Your task to perform on an android device: turn pop-ups off in chrome Image 0: 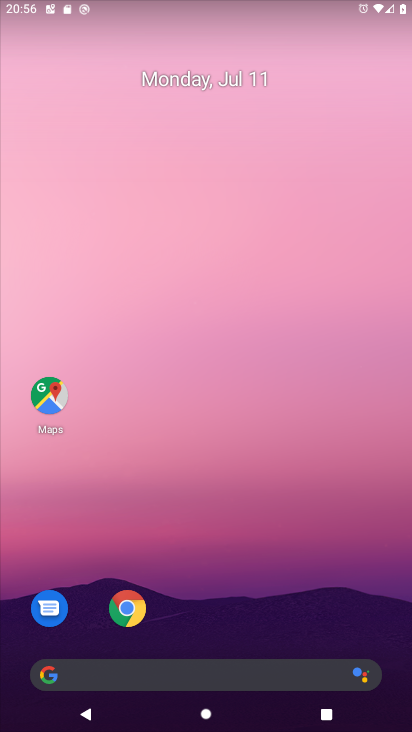
Step 0: click (144, 610)
Your task to perform on an android device: turn pop-ups off in chrome Image 1: 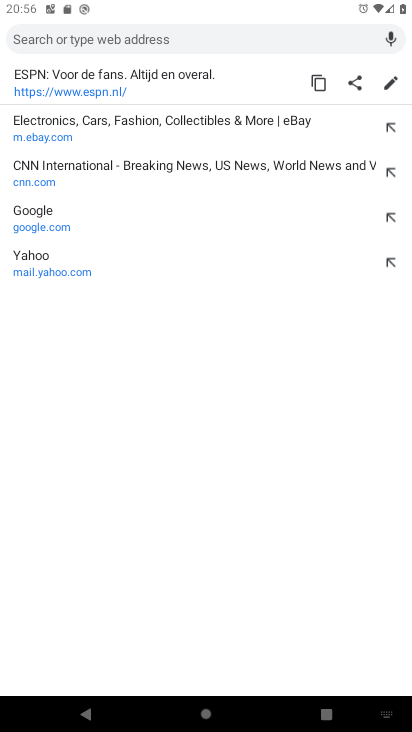
Step 1: press back button
Your task to perform on an android device: turn pop-ups off in chrome Image 2: 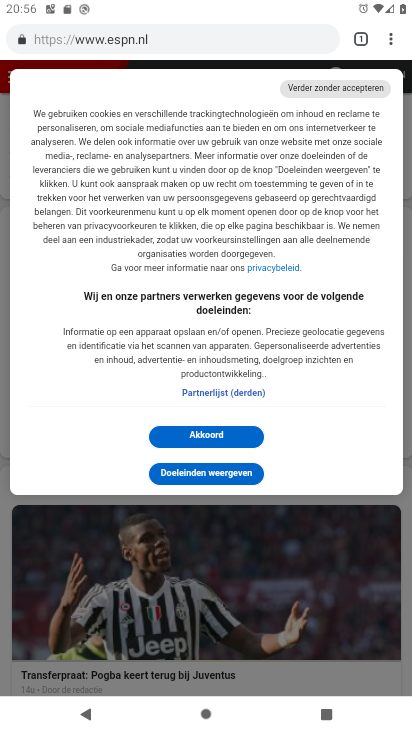
Step 2: click (191, 438)
Your task to perform on an android device: turn pop-ups off in chrome Image 3: 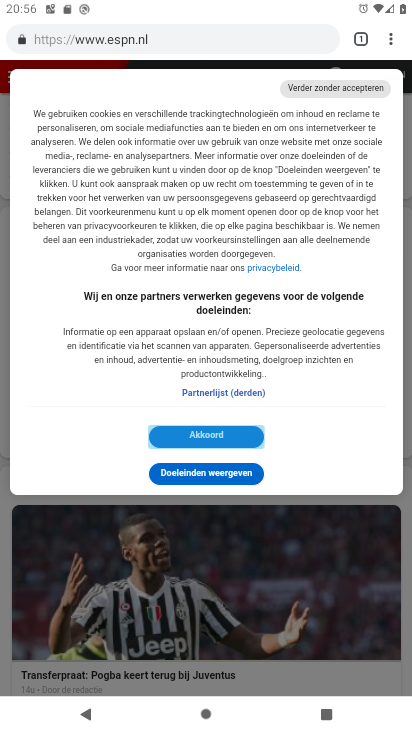
Step 3: click (391, 32)
Your task to perform on an android device: turn pop-ups off in chrome Image 4: 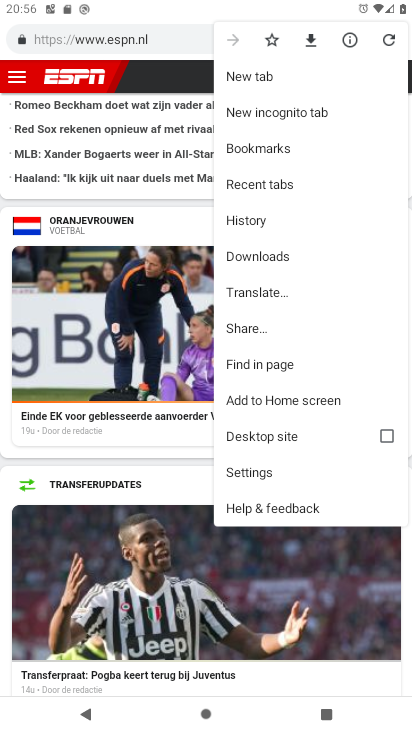
Step 4: click (255, 478)
Your task to perform on an android device: turn pop-ups off in chrome Image 5: 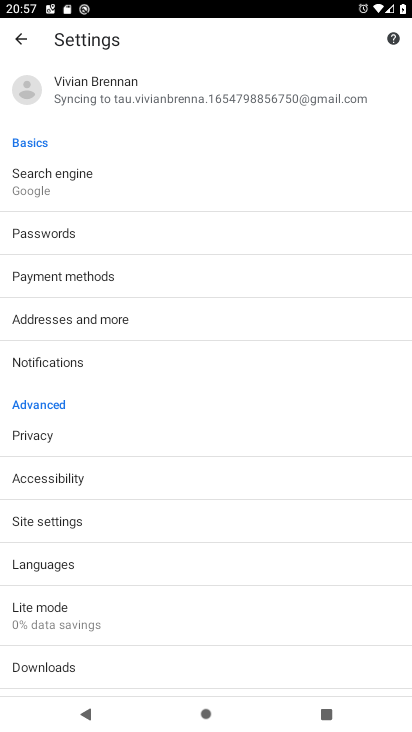
Step 5: click (209, 513)
Your task to perform on an android device: turn pop-ups off in chrome Image 6: 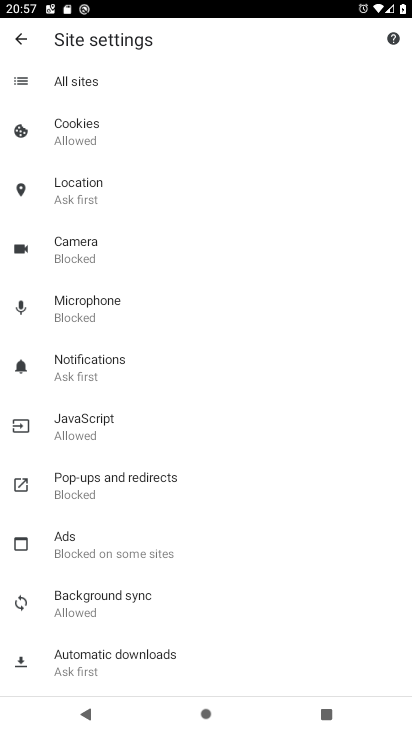
Step 6: click (131, 480)
Your task to perform on an android device: turn pop-ups off in chrome Image 7: 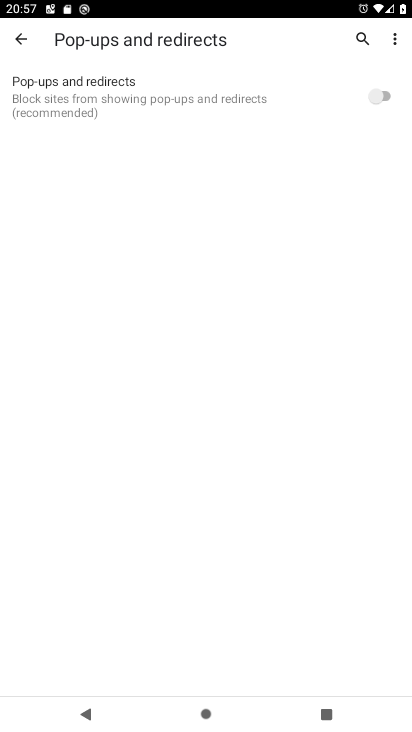
Step 7: click (365, 97)
Your task to perform on an android device: turn pop-ups off in chrome Image 8: 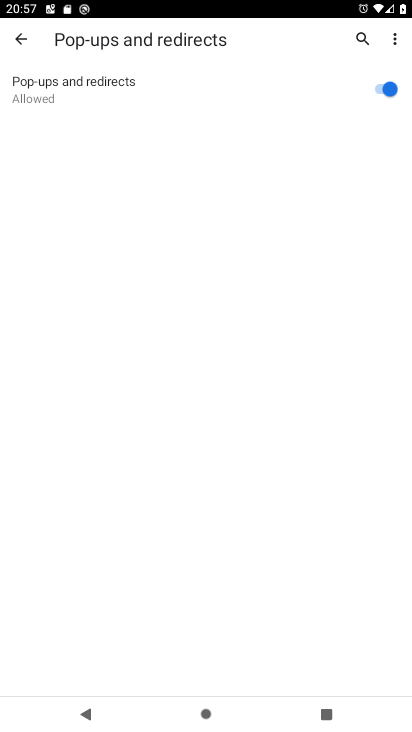
Step 8: task complete